Your task to perform on an android device: Open Reddit.com Image 0: 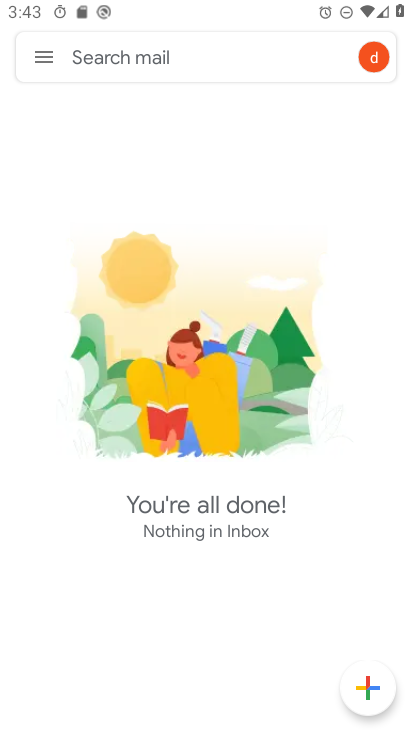
Step 0: press home button
Your task to perform on an android device: Open Reddit.com Image 1: 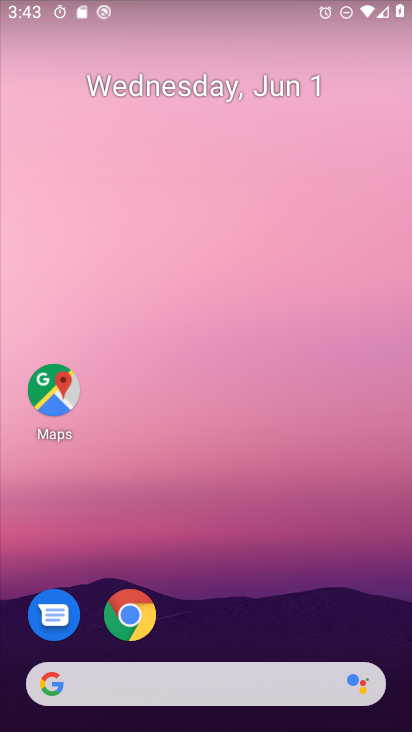
Step 1: drag from (239, 641) to (189, 48)
Your task to perform on an android device: Open Reddit.com Image 2: 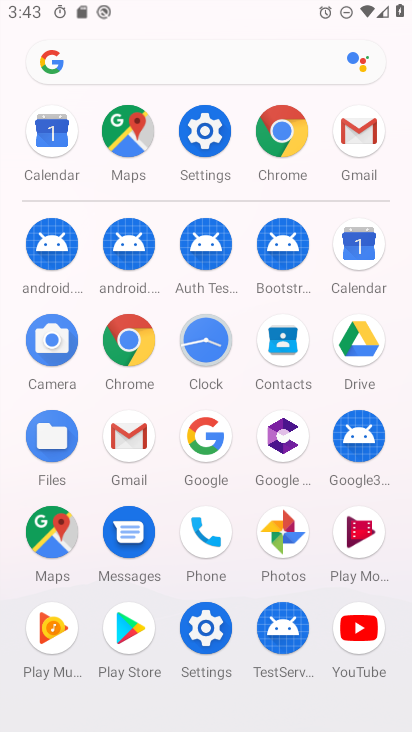
Step 2: click (278, 159)
Your task to perform on an android device: Open Reddit.com Image 3: 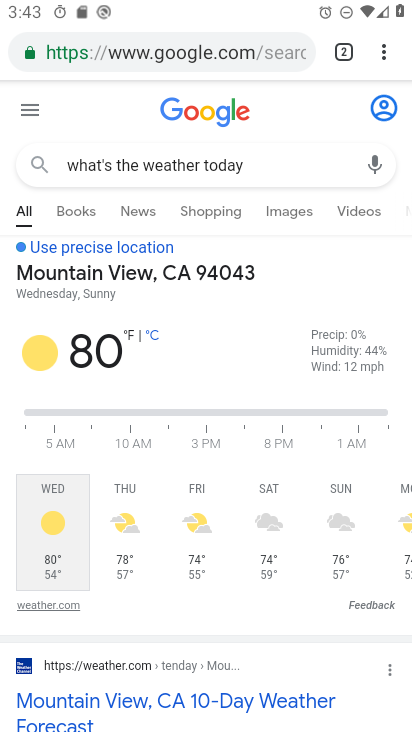
Step 3: click (286, 59)
Your task to perform on an android device: Open Reddit.com Image 4: 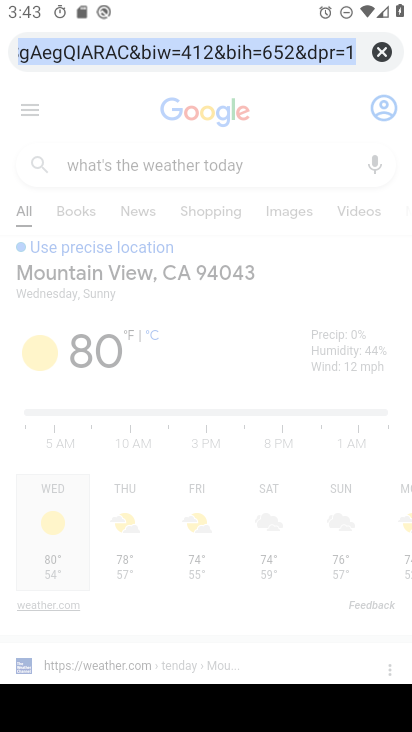
Step 4: click (383, 51)
Your task to perform on an android device: Open Reddit.com Image 5: 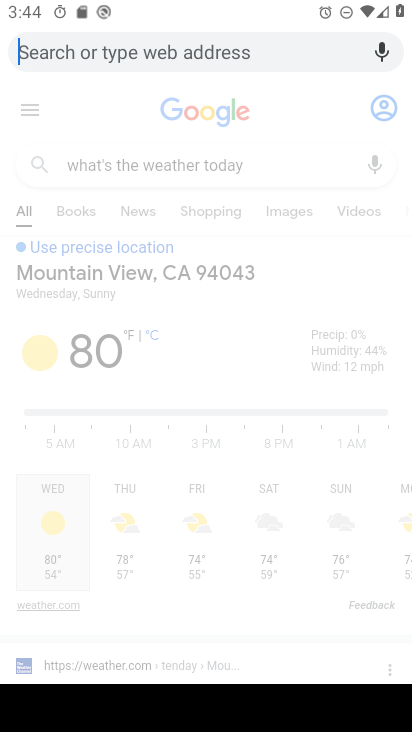
Step 5: type "reddit.com"
Your task to perform on an android device: Open Reddit.com Image 6: 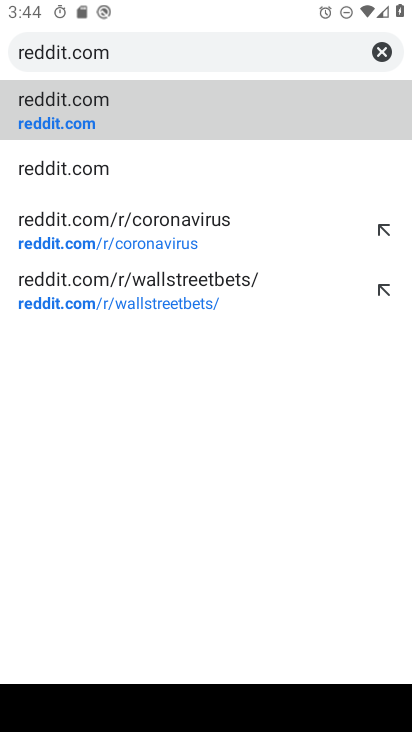
Step 6: click (212, 117)
Your task to perform on an android device: Open Reddit.com Image 7: 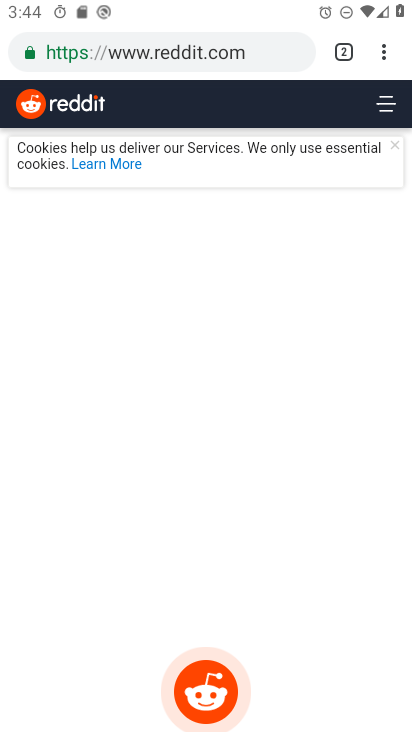
Step 7: task complete